Your task to perform on an android device: See recent photos Image 0: 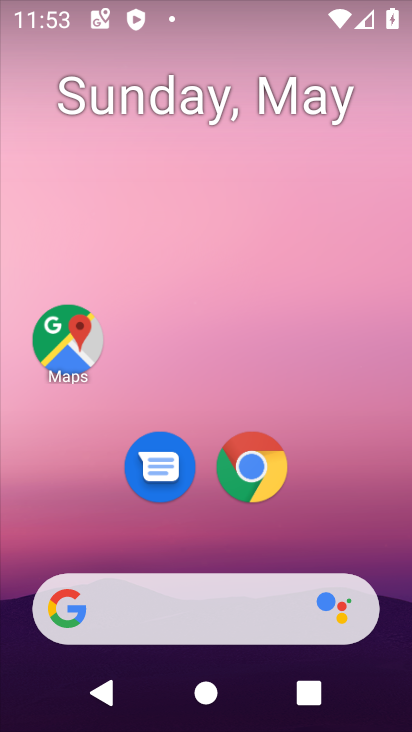
Step 0: drag from (391, 623) to (262, 50)
Your task to perform on an android device: See recent photos Image 1: 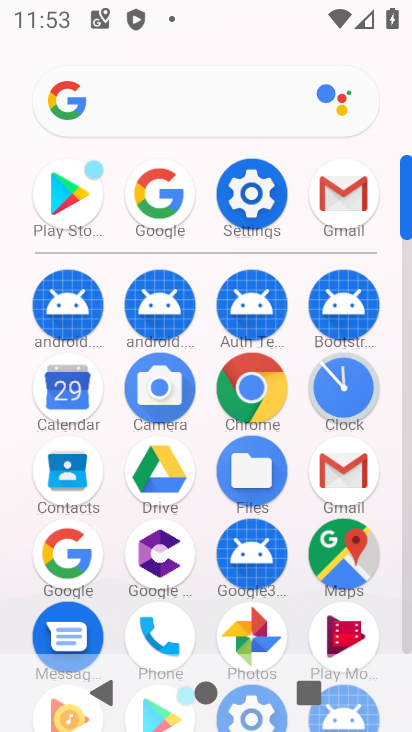
Step 1: click (247, 625)
Your task to perform on an android device: See recent photos Image 2: 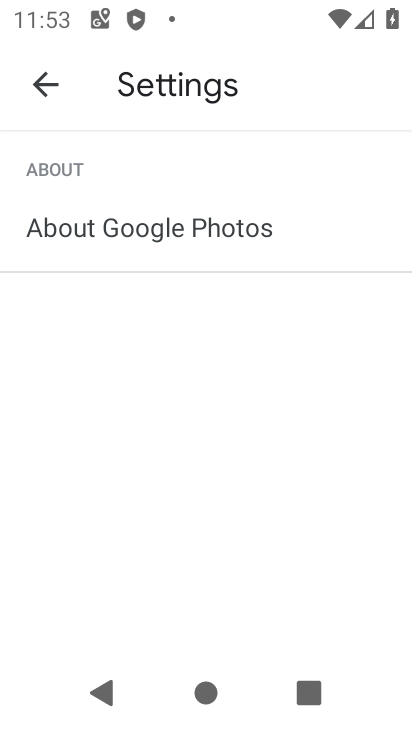
Step 2: press back button
Your task to perform on an android device: See recent photos Image 3: 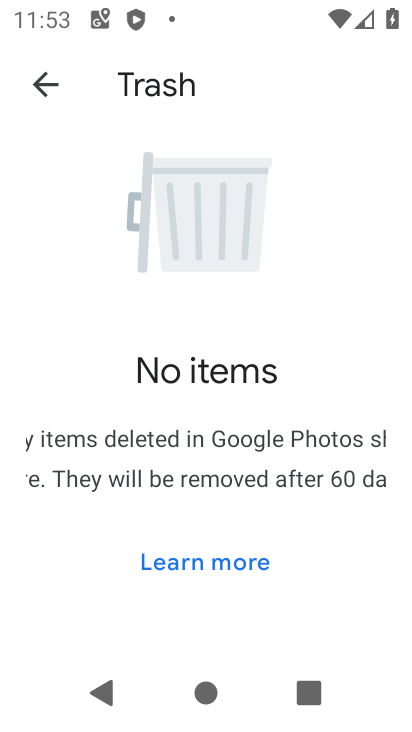
Step 3: press back button
Your task to perform on an android device: See recent photos Image 4: 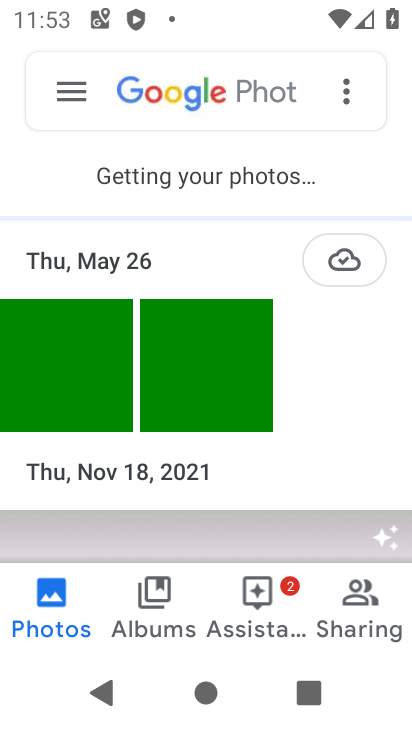
Step 4: click (65, 347)
Your task to perform on an android device: See recent photos Image 5: 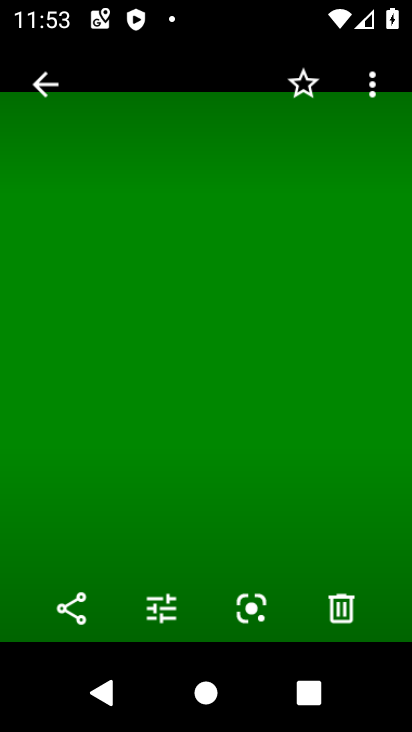
Step 5: task complete